Your task to perform on an android device: uninstall "Google Sheets" Image 0: 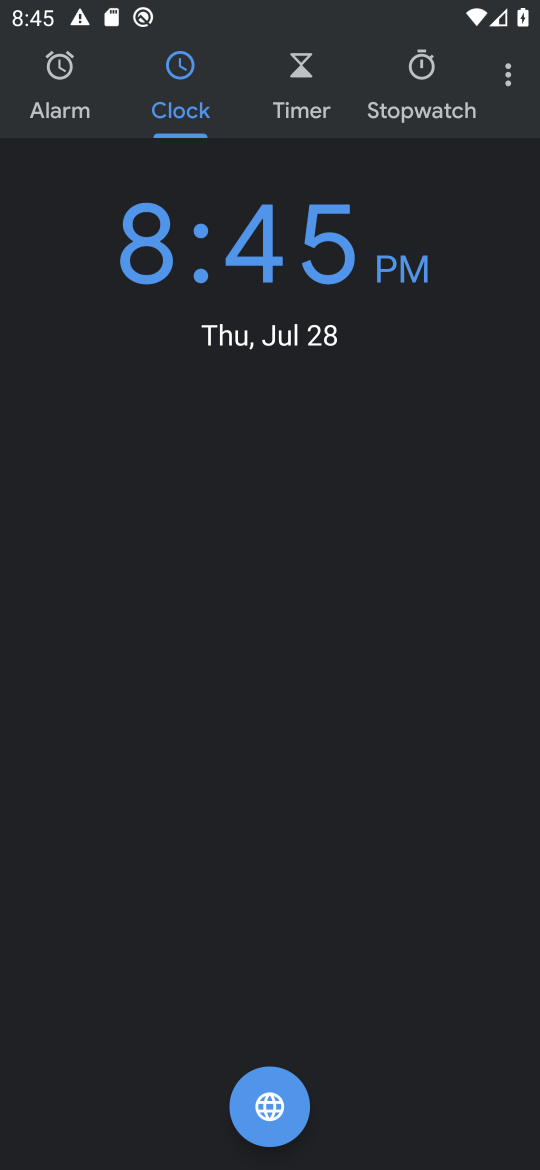
Step 0: press home button
Your task to perform on an android device: uninstall "Google Sheets" Image 1: 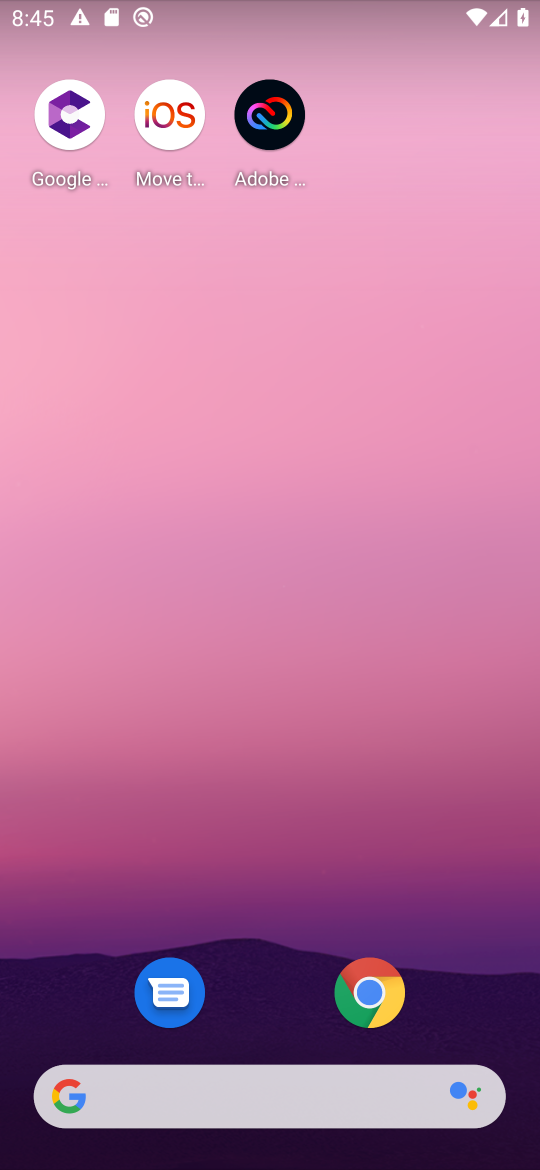
Step 1: task complete